Your task to perform on an android device: set default search engine in the chrome app Image 0: 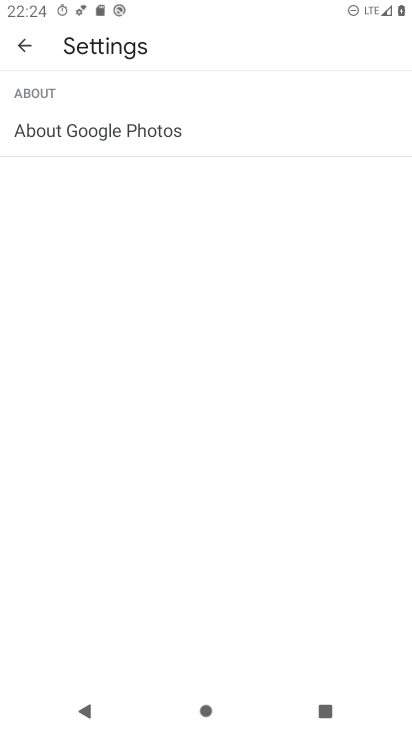
Step 0: press home button
Your task to perform on an android device: set default search engine in the chrome app Image 1: 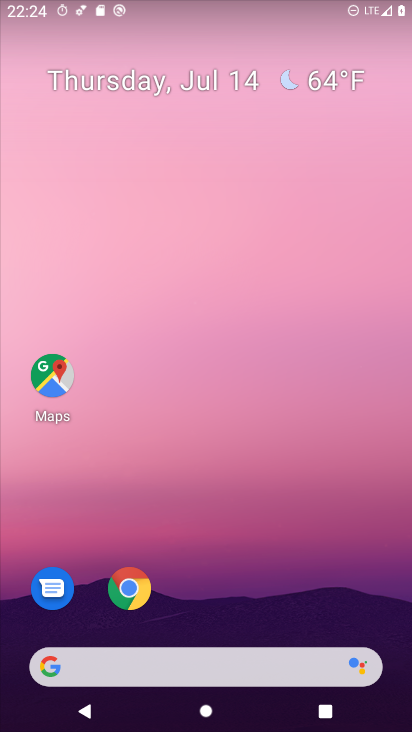
Step 1: drag from (313, 596) to (329, 89)
Your task to perform on an android device: set default search engine in the chrome app Image 2: 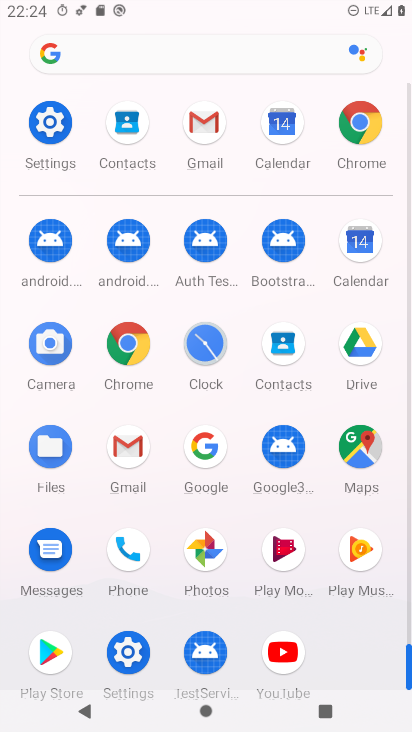
Step 2: click (132, 354)
Your task to perform on an android device: set default search engine in the chrome app Image 3: 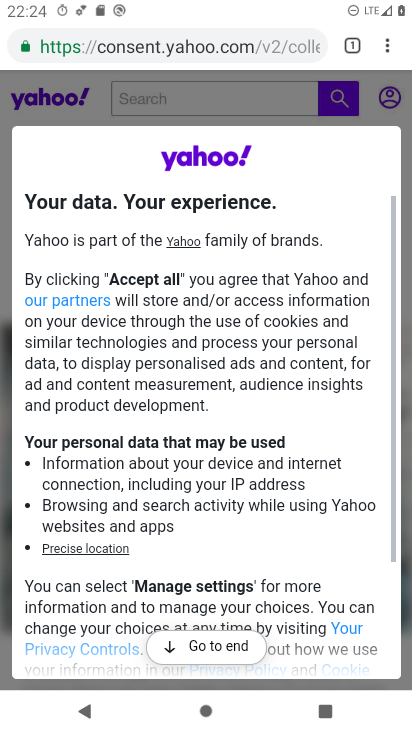
Step 3: click (387, 45)
Your task to perform on an android device: set default search engine in the chrome app Image 4: 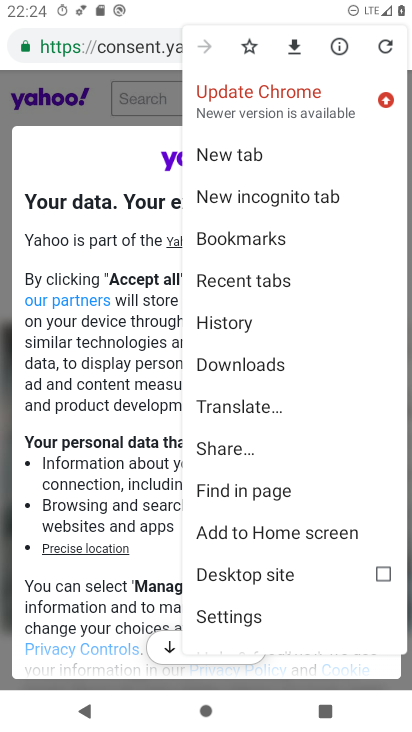
Step 4: click (238, 613)
Your task to perform on an android device: set default search engine in the chrome app Image 5: 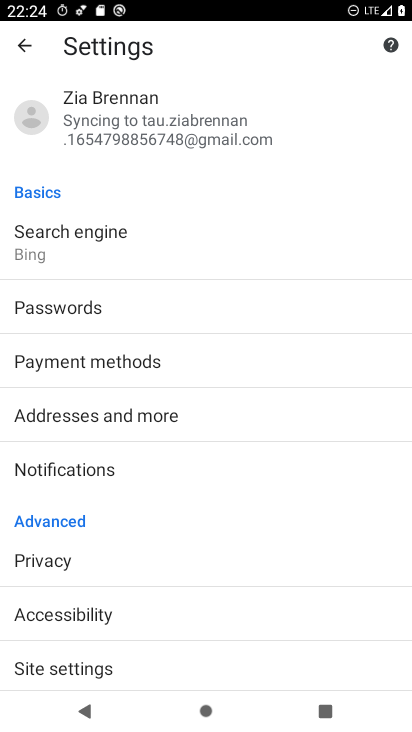
Step 5: drag from (365, 539) to (369, 433)
Your task to perform on an android device: set default search engine in the chrome app Image 6: 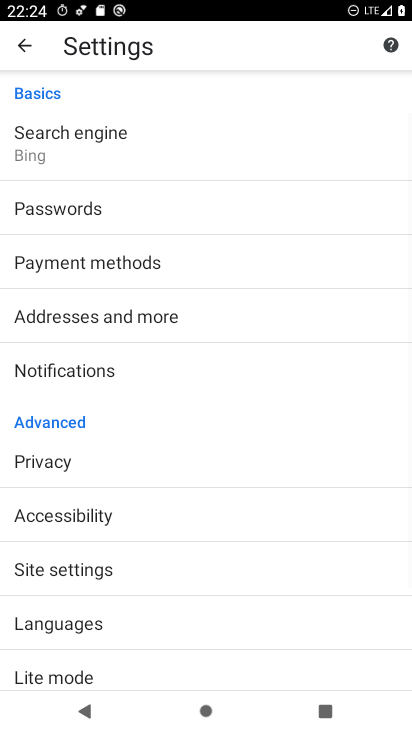
Step 6: drag from (324, 519) to (326, 439)
Your task to perform on an android device: set default search engine in the chrome app Image 7: 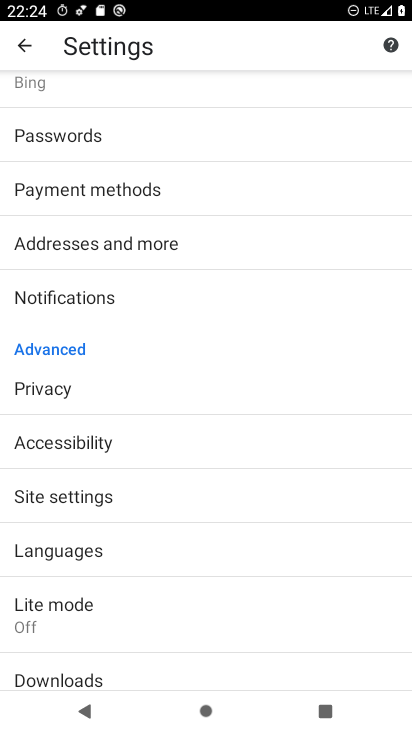
Step 7: drag from (325, 556) to (332, 405)
Your task to perform on an android device: set default search engine in the chrome app Image 8: 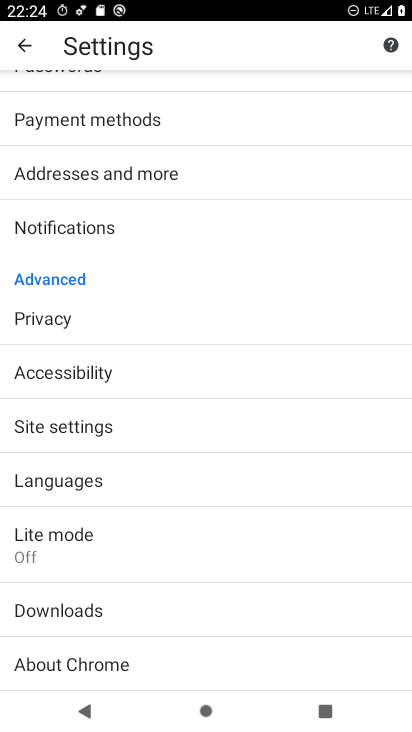
Step 8: drag from (312, 224) to (294, 356)
Your task to perform on an android device: set default search engine in the chrome app Image 9: 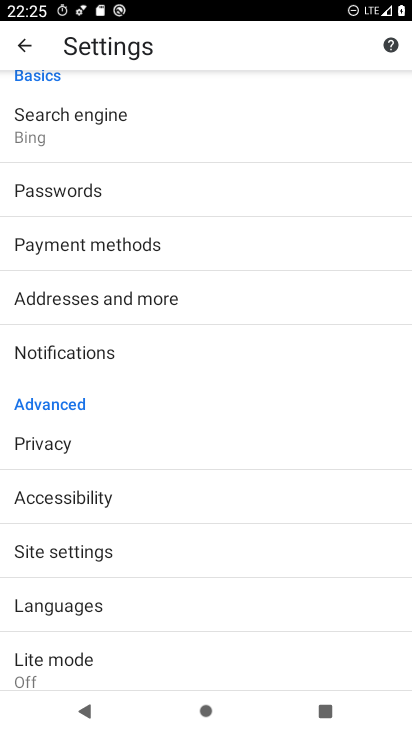
Step 9: drag from (308, 226) to (284, 365)
Your task to perform on an android device: set default search engine in the chrome app Image 10: 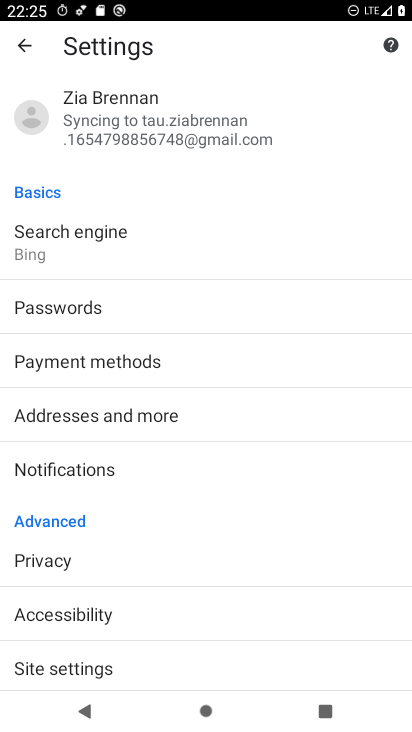
Step 10: click (183, 259)
Your task to perform on an android device: set default search engine in the chrome app Image 11: 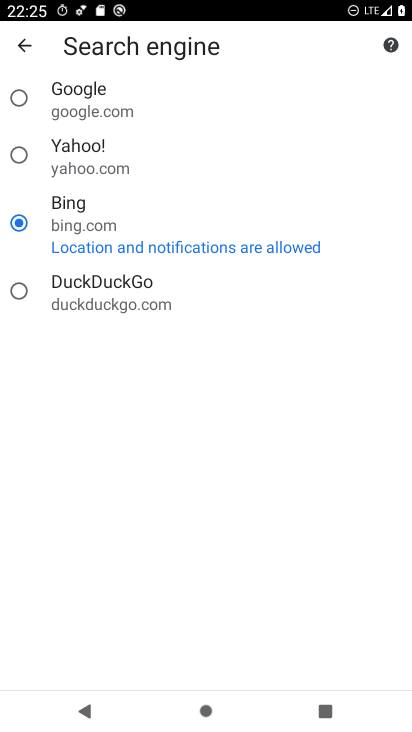
Step 11: task complete